Your task to perform on an android device: Open Google Chrome and click the shortcut for Amazon.com Image 0: 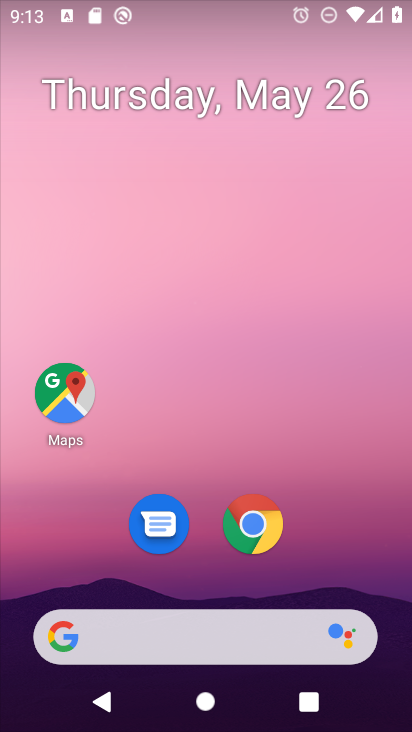
Step 0: click (249, 525)
Your task to perform on an android device: Open Google Chrome and click the shortcut for Amazon.com Image 1: 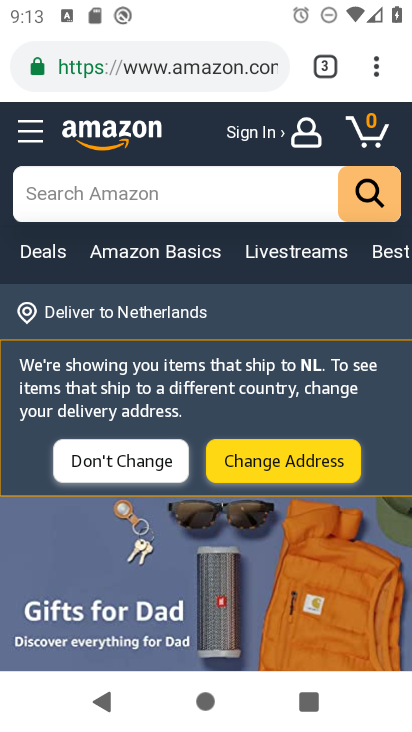
Step 1: task complete